Your task to perform on an android device: search for starred emails in the gmail app Image 0: 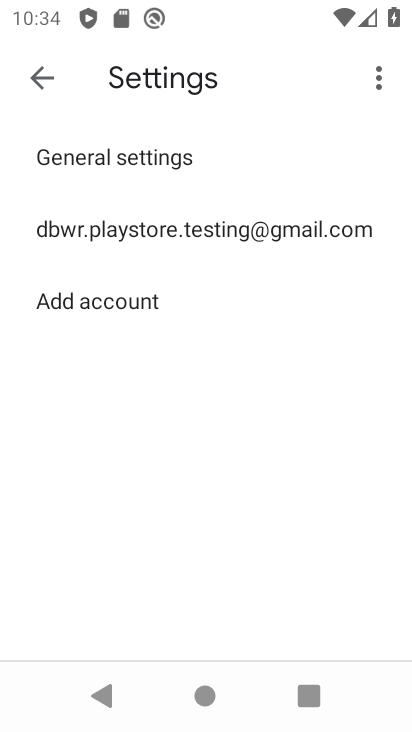
Step 0: click (29, 77)
Your task to perform on an android device: search for starred emails in the gmail app Image 1: 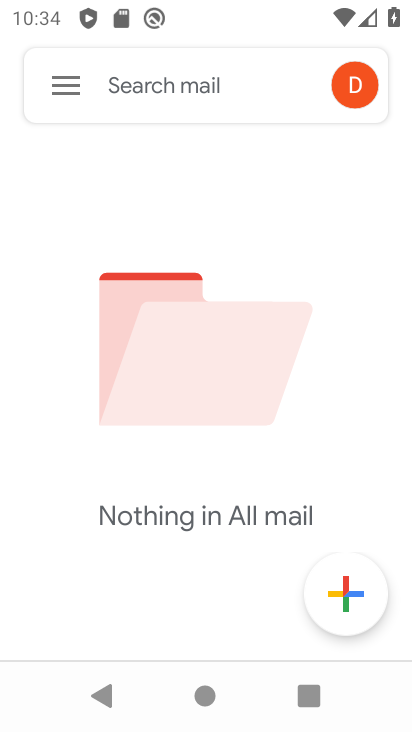
Step 1: click (56, 86)
Your task to perform on an android device: search for starred emails in the gmail app Image 2: 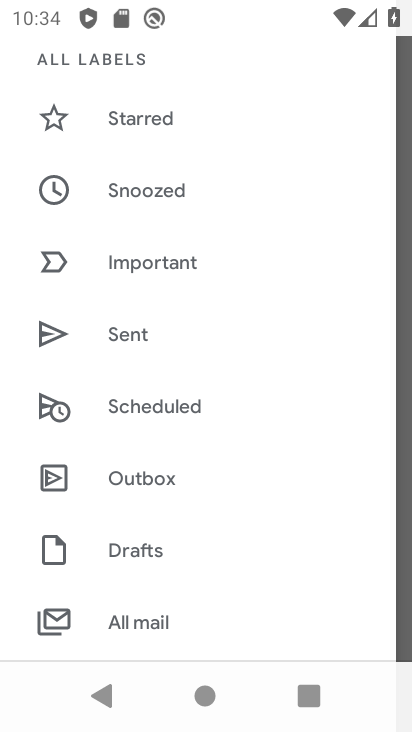
Step 2: click (139, 122)
Your task to perform on an android device: search for starred emails in the gmail app Image 3: 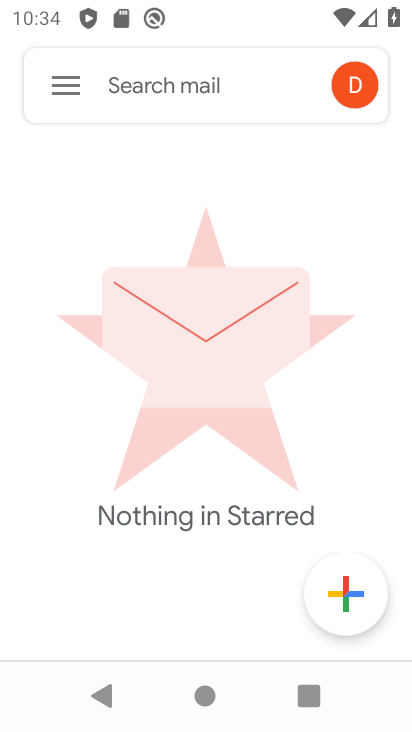
Step 3: task complete